Your task to perform on an android device: Do I have any events this weekend? Image 0: 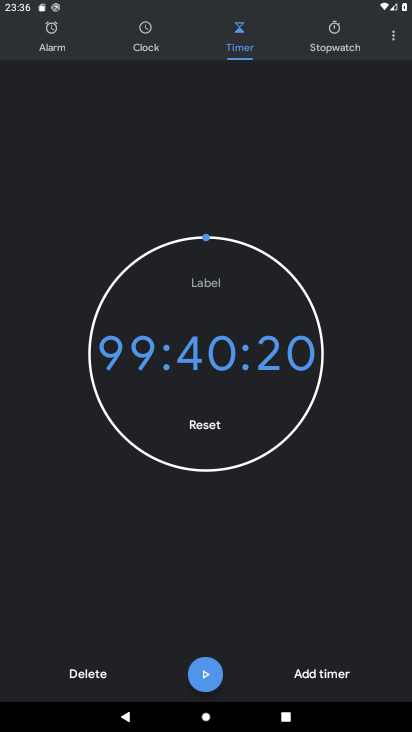
Step 0: press home button
Your task to perform on an android device: Do I have any events this weekend? Image 1: 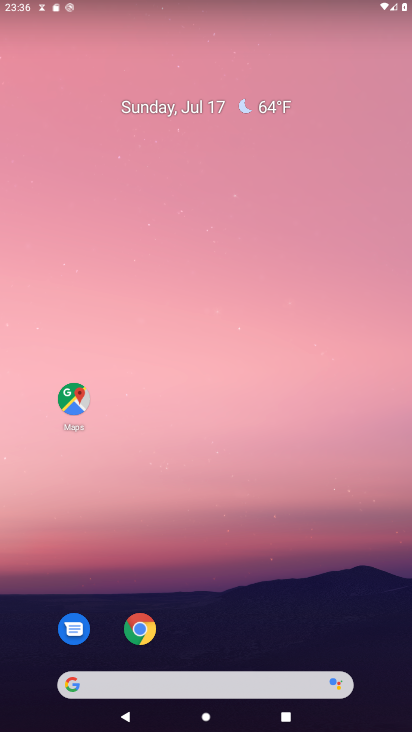
Step 1: drag from (237, 602) to (245, 406)
Your task to perform on an android device: Do I have any events this weekend? Image 2: 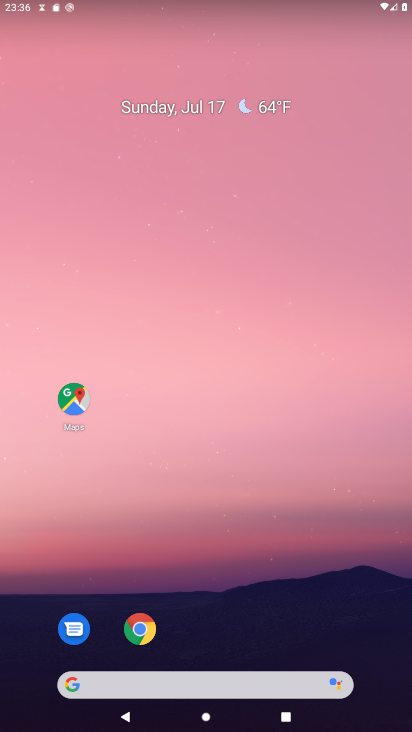
Step 2: drag from (212, 640) to (189, 59)
Your task to perform on an android device: Do I have any events this weekend? Image 3: 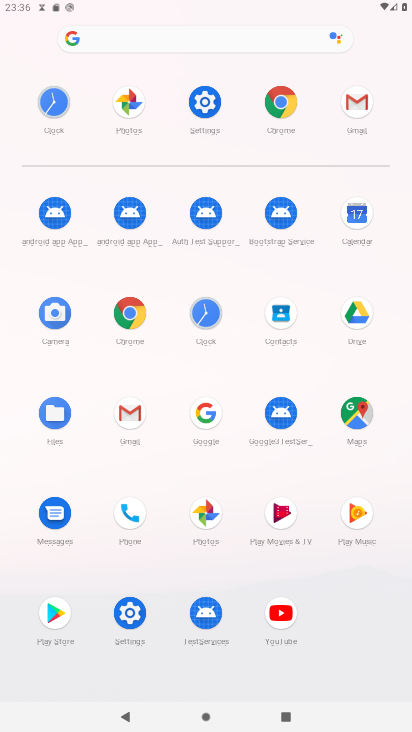
Step 3: click (357, 216)
Your task to perform on an android device: Do I have any events this weekend? Image 4: 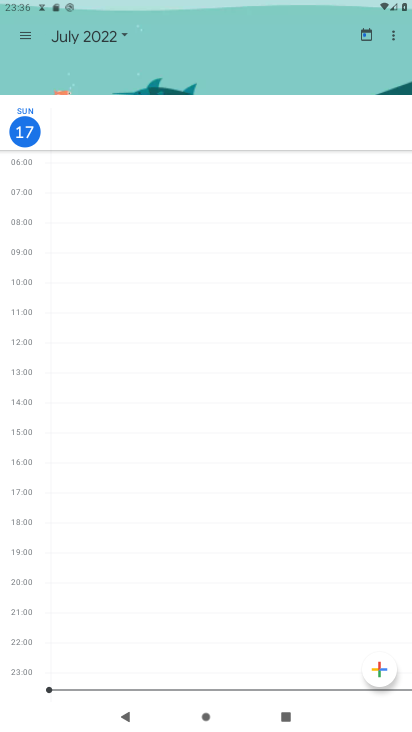
Step 4: click (17, 34)
Your task to perform on an android device: Do I have any events this weekend? Image 5: 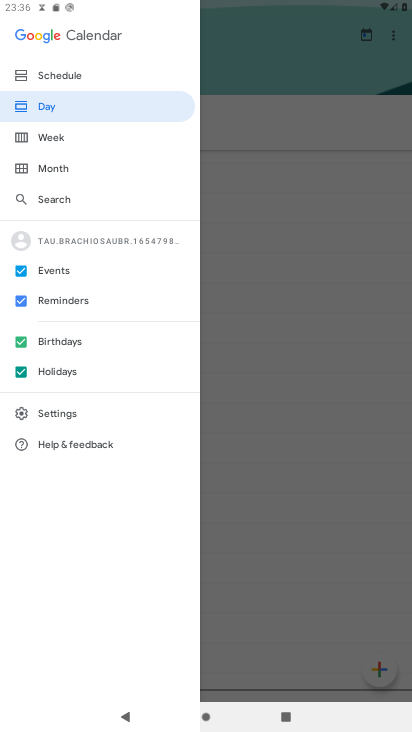
Step 5: click (57, 161)
Your task to perform on an android device: Do I have any events this weekend? Image 6: 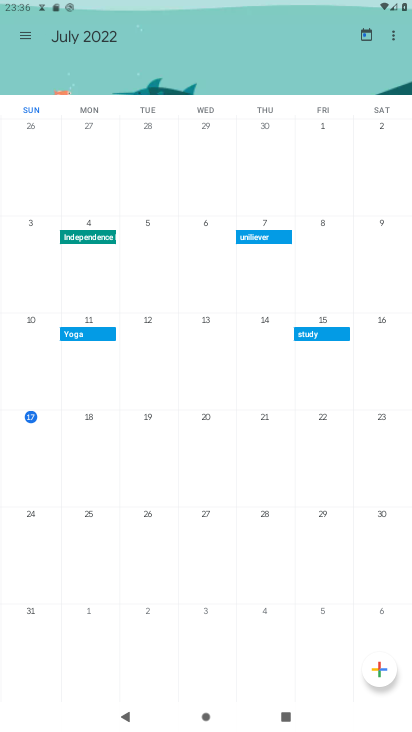
Step 6: click (32, 25)
Your task to perform on an android device: Do I have any events this weekend? Image 7: 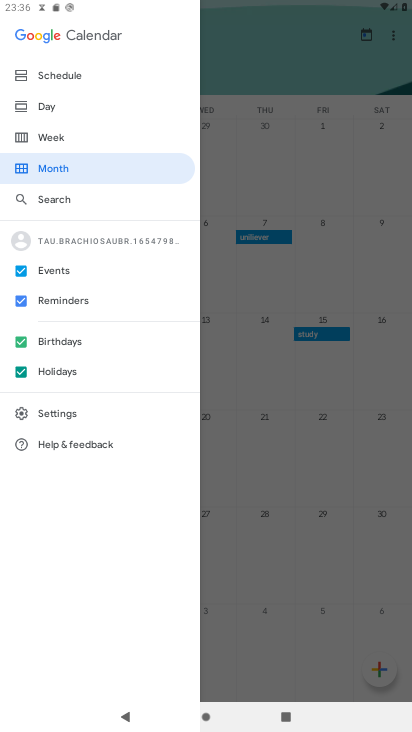
Step 7: click (61, 130)
Your task to perform on an android device: Do I have any events this weekend? Image 8: 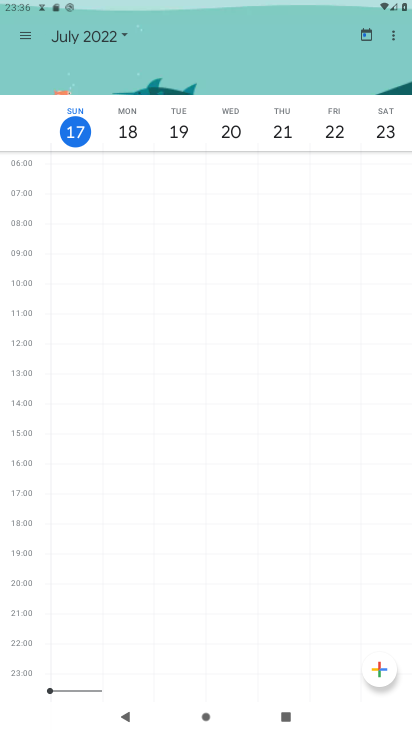
Step 8: task complete